Your task to perform on an android device: turn on translation in the chrome app Image 0: 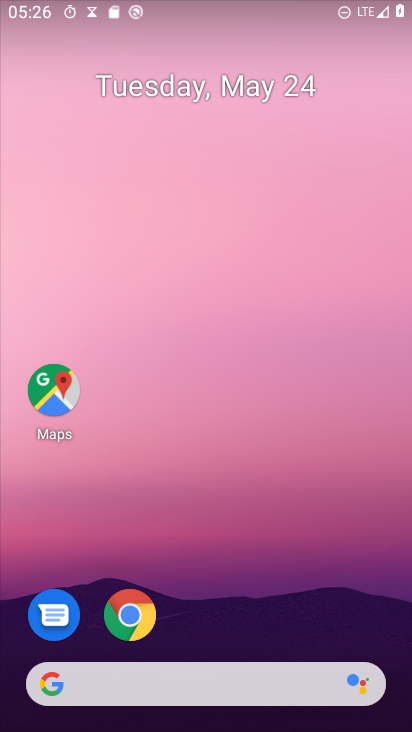
Step 0: click (132, 609)
Your task to perform on an android device: turn on translation in the chrome app Image 1: 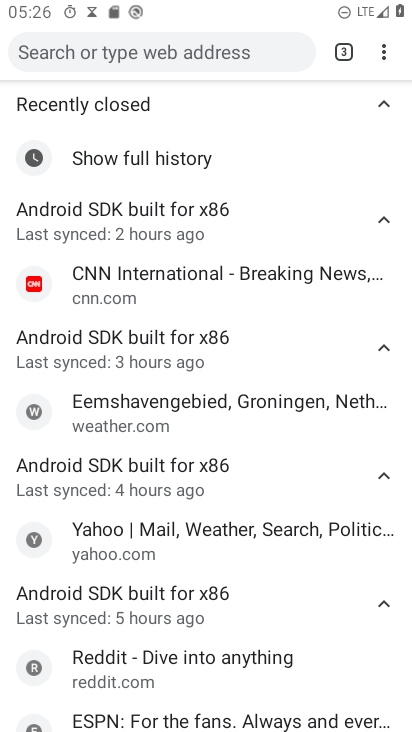
Step 1: click (374, 51)
Your task to perform on an android device: turn on translation in the chrome app Image 2: 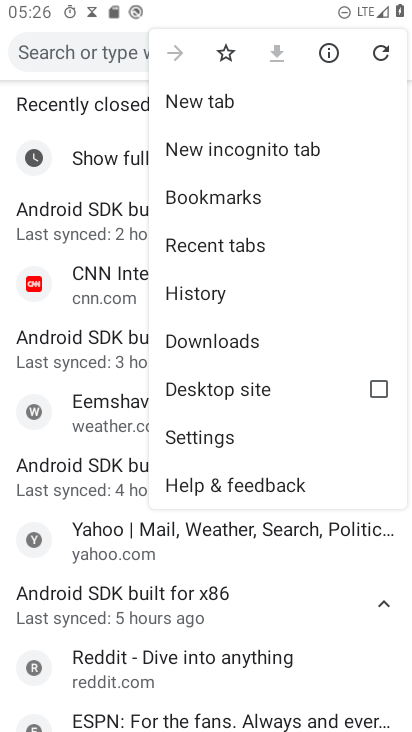
Step 2: click (200, 442)
Your task to perform on an android device: turn on translation in the chrome app Image 3: 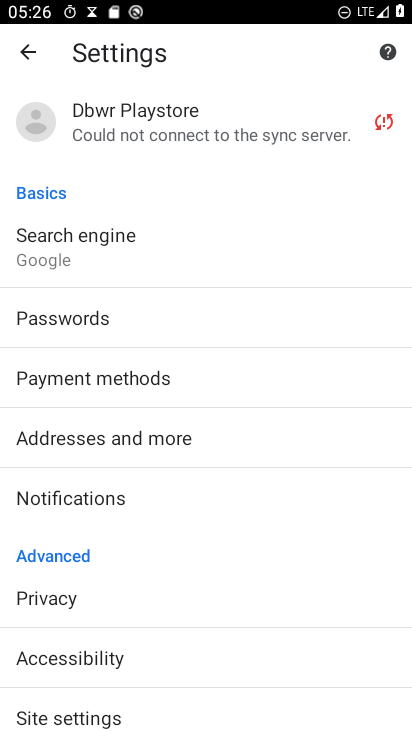
Step 3: drag from (72, 672) to (203, 243)
Your task to perform on an android device: turn on translation in the chrome app Image 4: 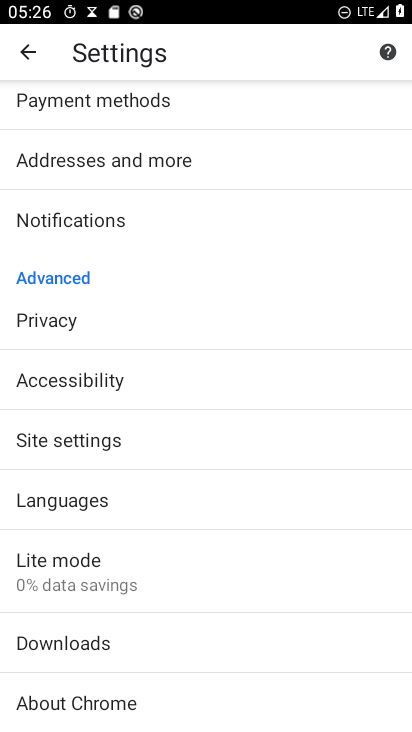
Step 4: click (71, 509)
Your task to perform on an android device: turn on translation in the chrome app Image 5: 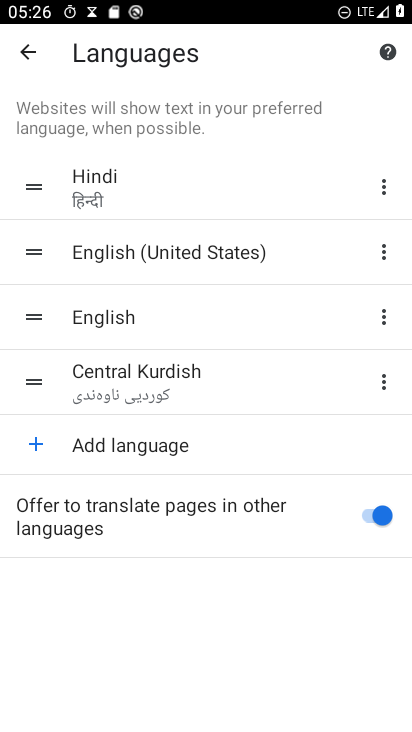
Step 5: task complete